Your task to perform on an android device: turn off translation in the chrome app Image 0: 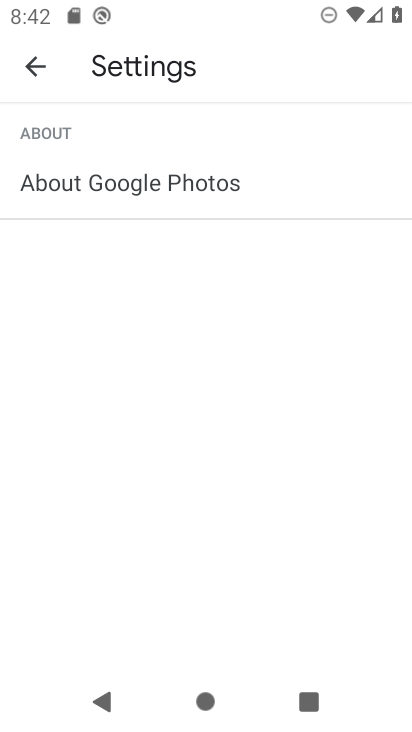
Step 0: press home button
Your task to perform on an android device: turn off translation in the chrome app Image 1: 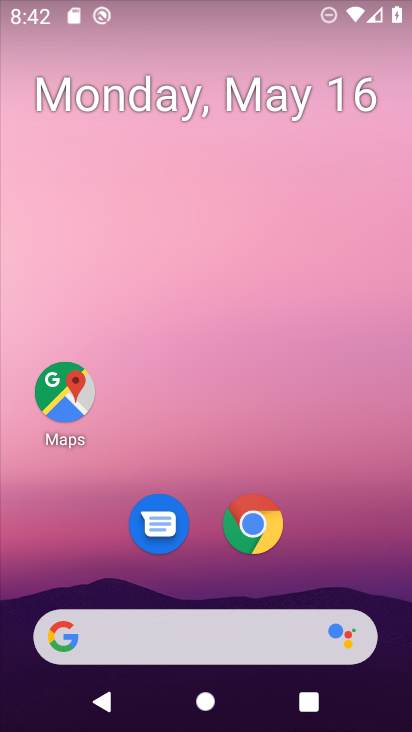
Step 1: click (259, 535)
Your task to perform on an android device: turn off translation in the chrome app Image 2: 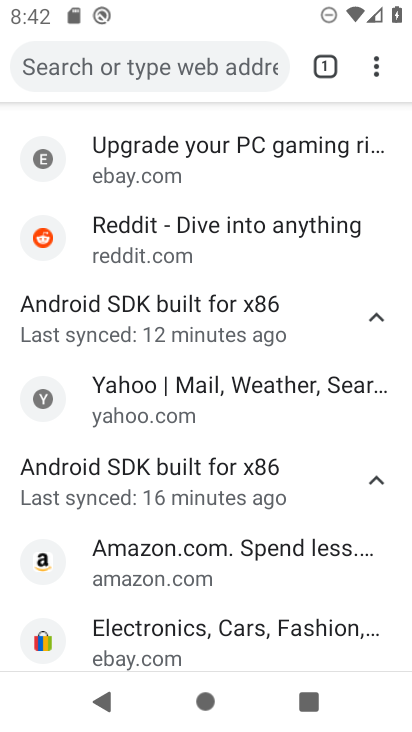
Step 2: click (367, 66)
Your task to perform on an android device: turn off translation in the chrome app Image 3: 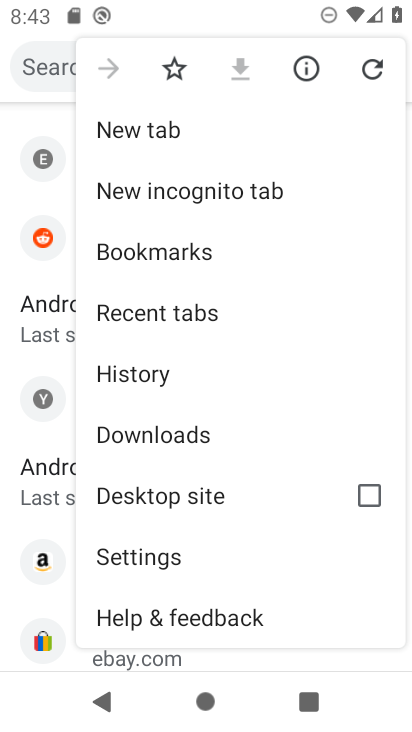
Step 3: click (218, 559)
Your task to perform on an android device: turn off translation in the chrome app Image 4: 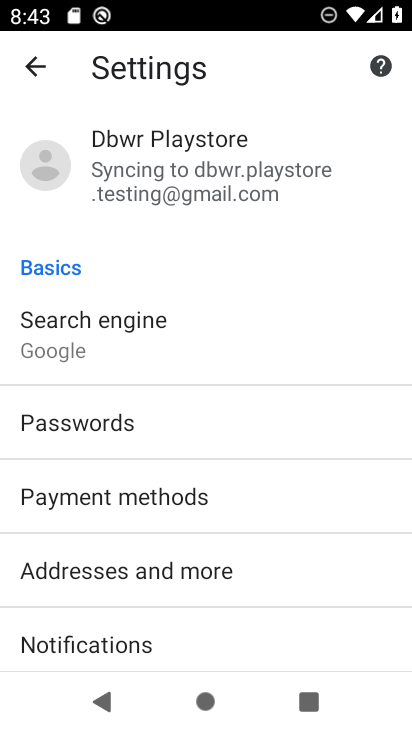
Step 4: drag from (277, 590) to (263, 133)
Your task to perform on an android device: turn off translation in the chrome app Image 5: 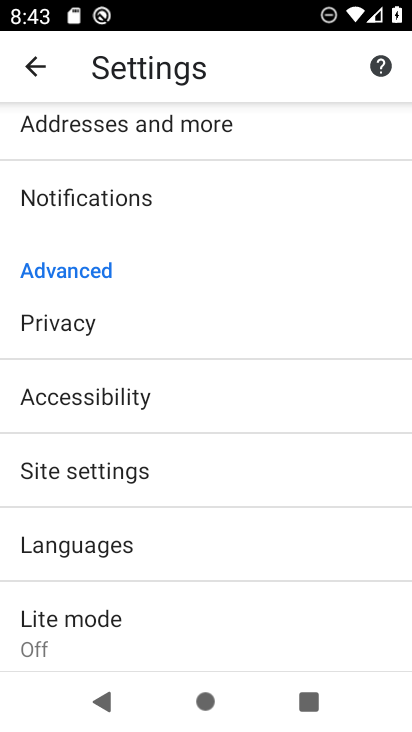
Step 5: click (253, 532)
Your task to perform on an android device: turn off translation in the chrome app Image 6: 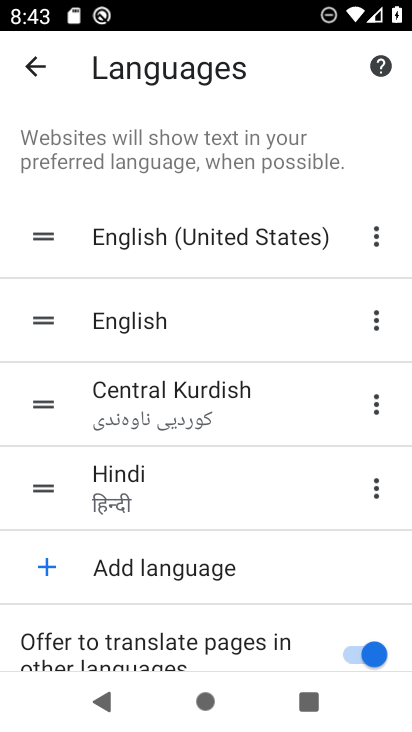
Step 6: click (347, 647)
Your task to perform on an android device: turn off translation in the chrome app Image 7: 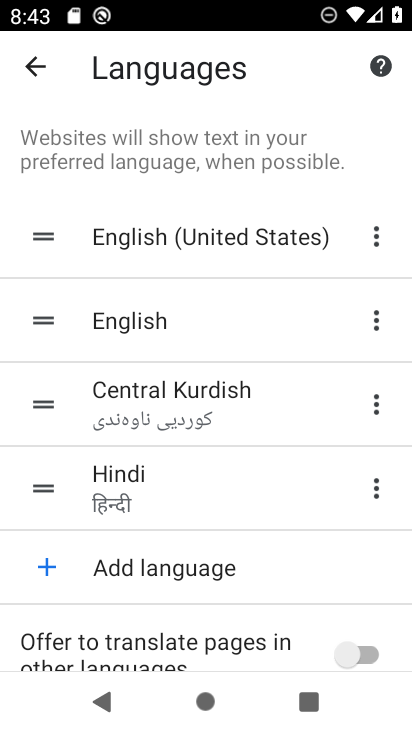
Step 7: task complete